Your task to perform on an android device: change alarm snooze length Image 0: 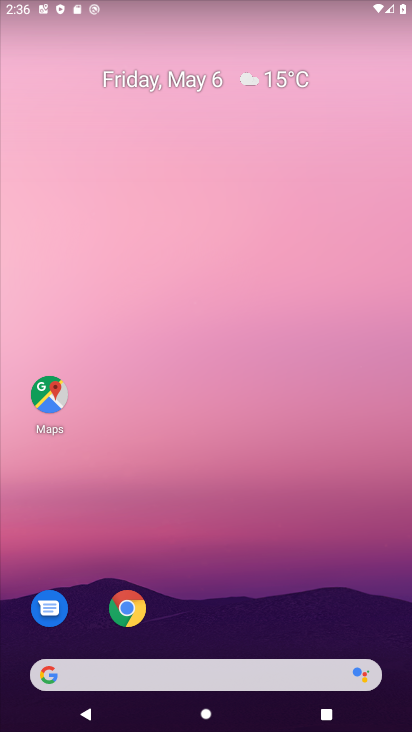
Step 0: drag from (214, 655) to (368, 135)
Your task to perform on an android device: change alarm snooze length Image 1: 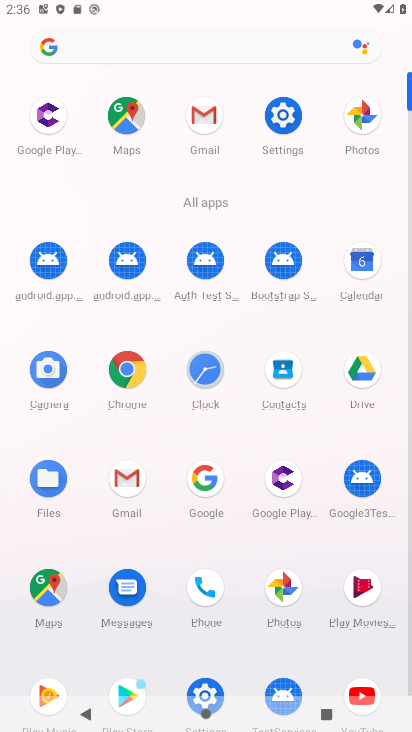
Step 1: click (204, 364)
Your task to perform on an android device: change alarm snooze length Image 2: 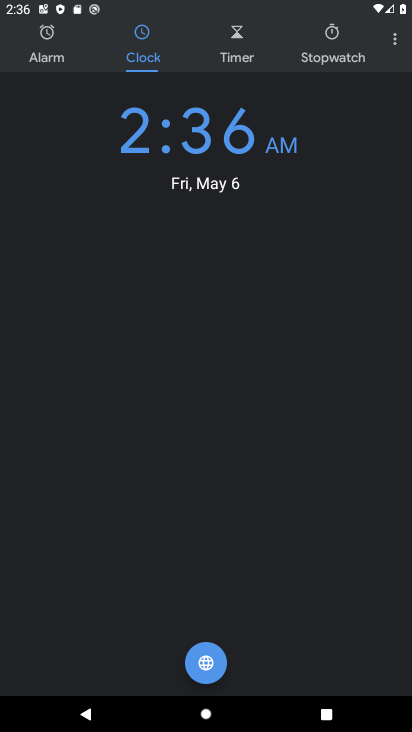
Step 2: click (45, 46)
Your task to perform on an android device: change alarm snooze length Image 3: 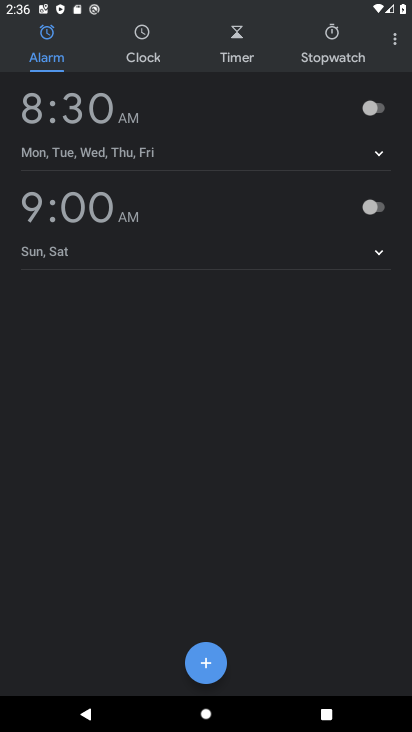
Step 3: click (392, 36)
Your task to perform on an android device: change alarm snooze length Image 4: 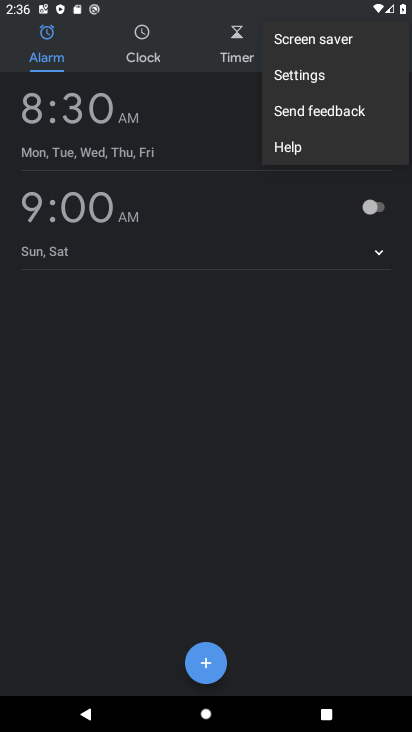
Step 4: click (310, 71)
Your task to perform on an android device: change alarm snooze length Image 5: 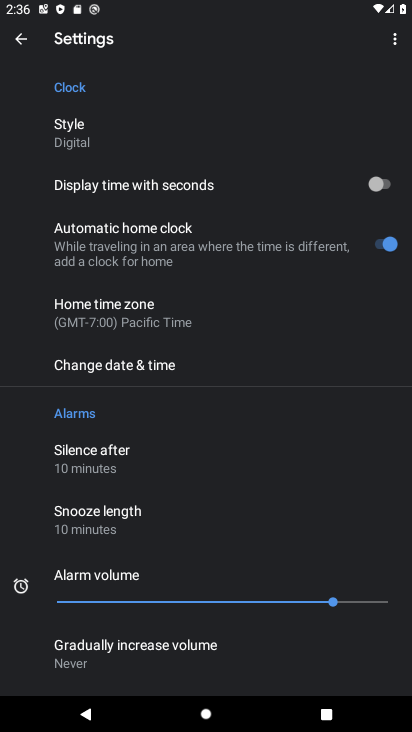
Step 5: drag from (211, 426) to (128, 49)
Your task to perform on an android device: change alarm snooze length Image 6: 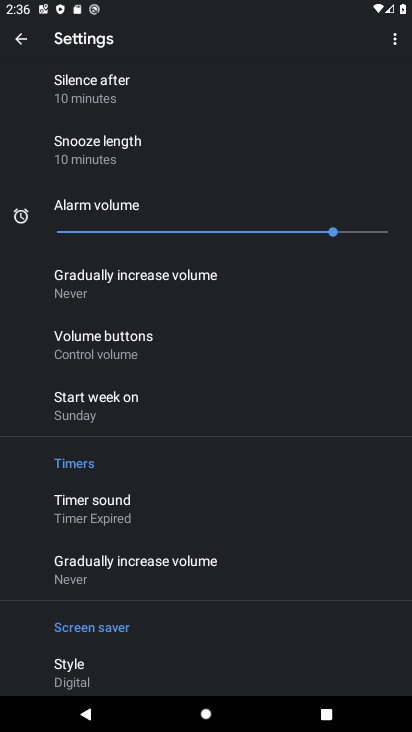
Step 6: drag from (191, 397) to (125, 77)
Your task to perform on an android device: change alarm snooze length Image 7: 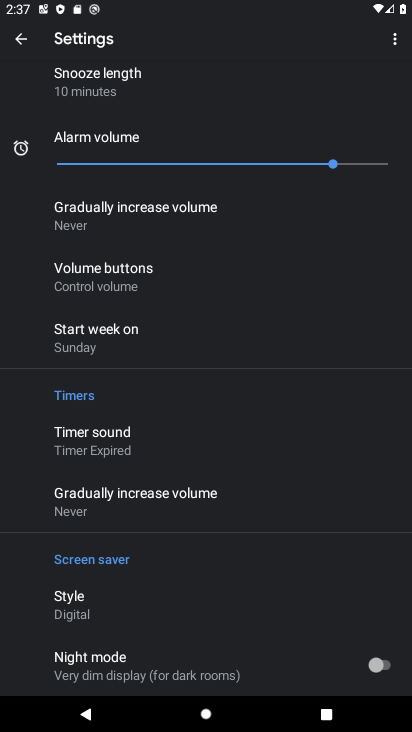
Step 7: drag from (117, 630) to (251, 233)
Your task to perform on an android device: change alarm snooze length Image 8: 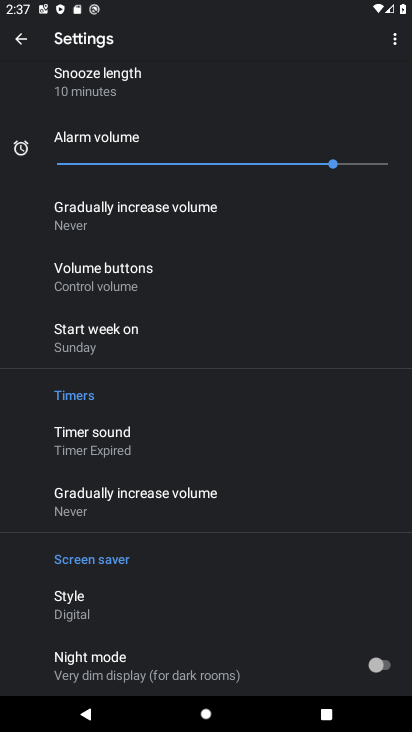
Step 8: drag from (251, 233) to (230, 449)
Your task to perform on an android device: change alarm snooze length Image 9: 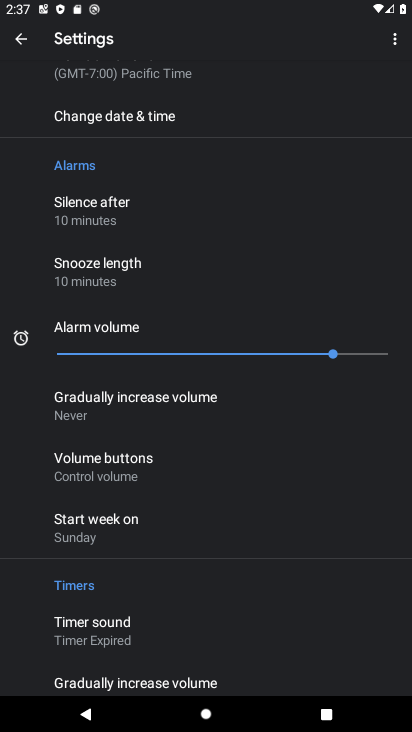
Step 9: click (171, 279)
Your task to perform on an android device: change alarm snooze length Image 10: 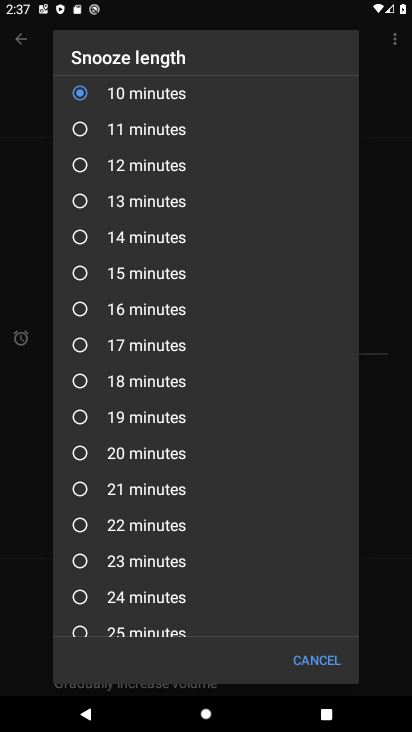
Step 10: click (145, 228)
Your task to perform on an android device: change alarm snooze length Image 11: 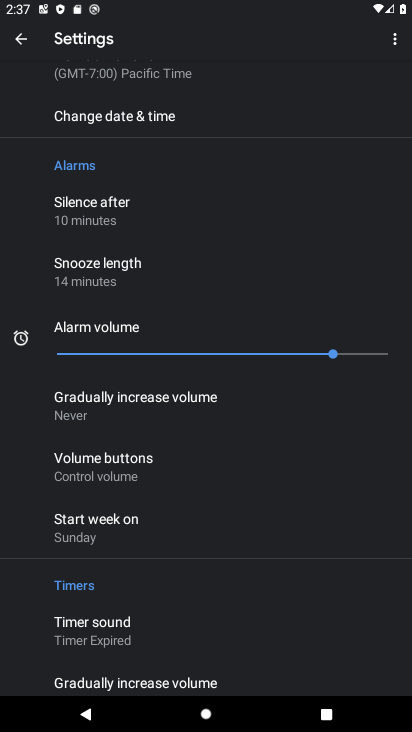
Step 11: task complete